Your task to perform on an android device: stop showing notifications on the lock screen Image 0: 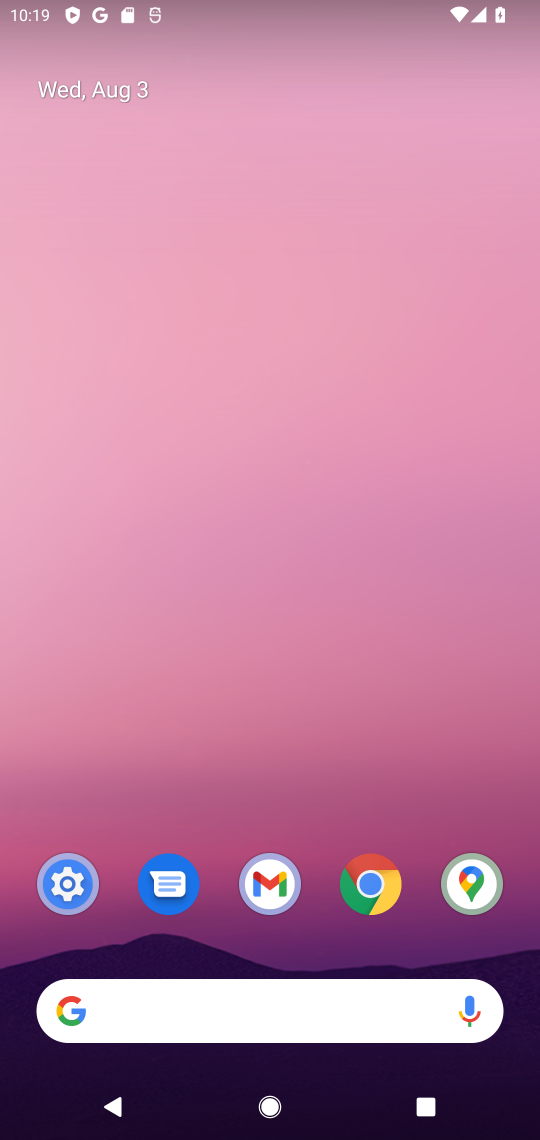
Step 0: click (65, 890)
Your task to perform on an android device: stop showing notifications on the lock screen Image 1: 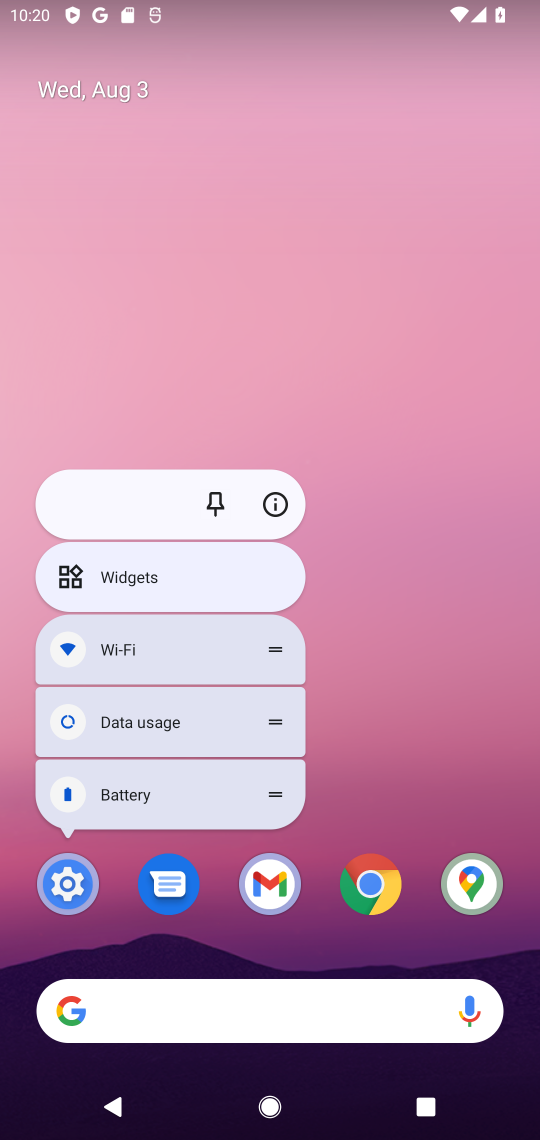
Step 1: click (73, 892)
Your task to perform on an android device: stop showing notifications on the lock screen Image 2: 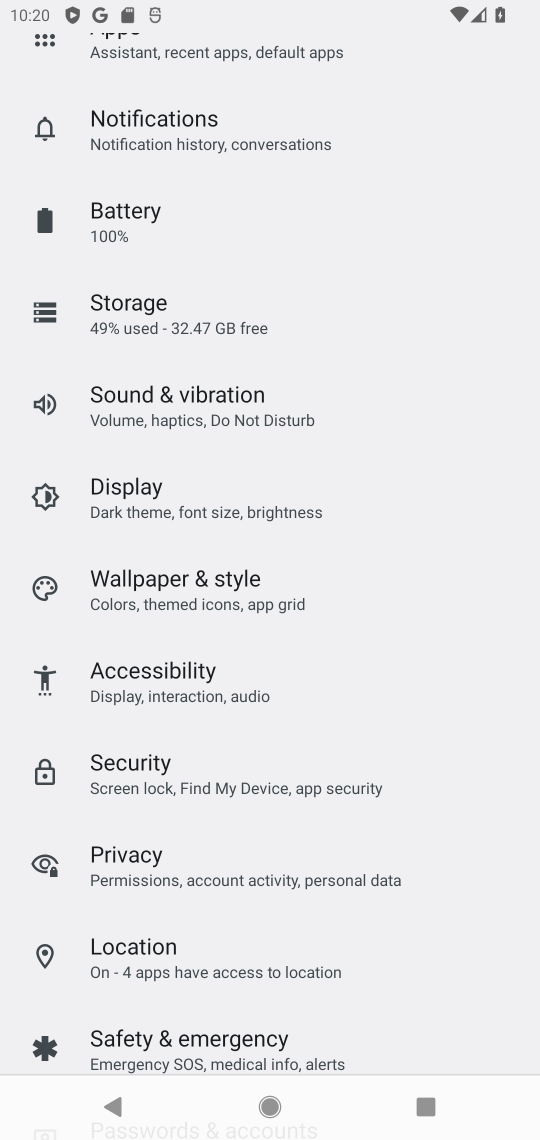
Step 2: click (158, 130)
Your task to perform on an android device: stop showing notifications on the lock screen Image 3: 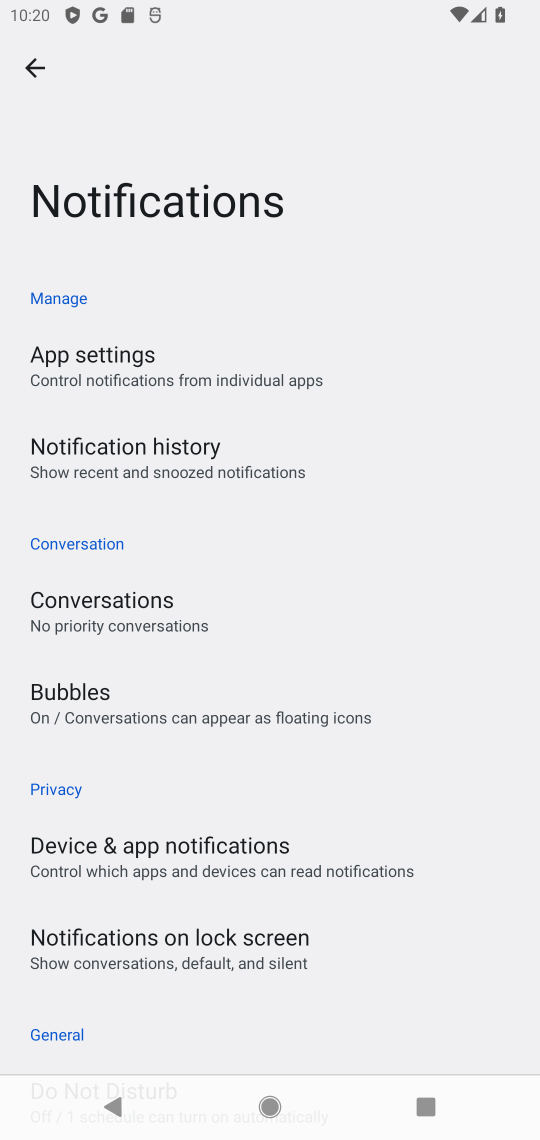
Step 3: click (162, 941)
Your task to perform on an android device: stop showing notifications on the lock screen Image 4: 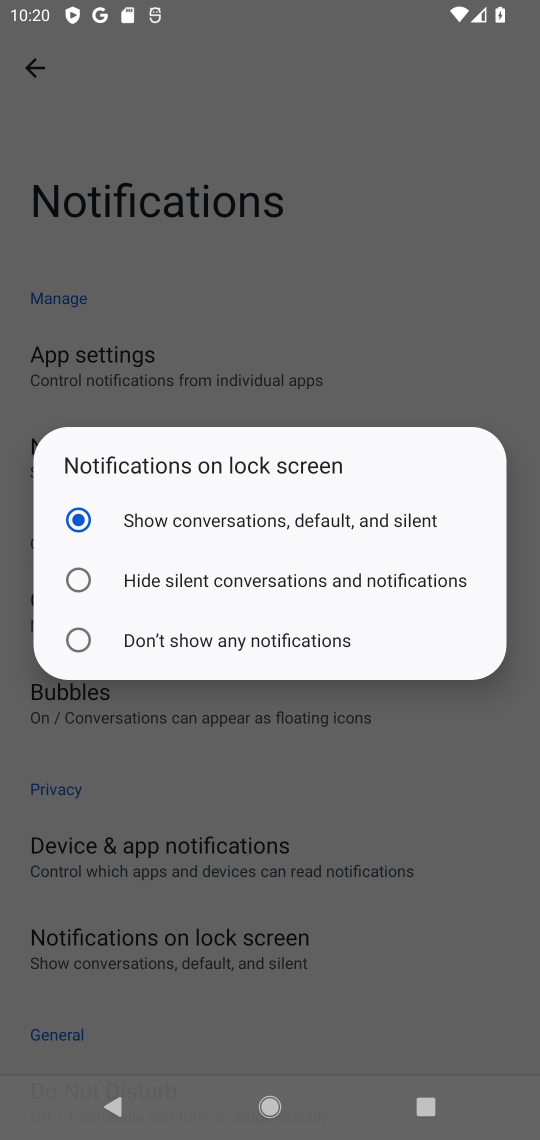
Step 4: click (67, 634)
Your task to perform on an android device: stop showing notifications on the lock screen Image 5: 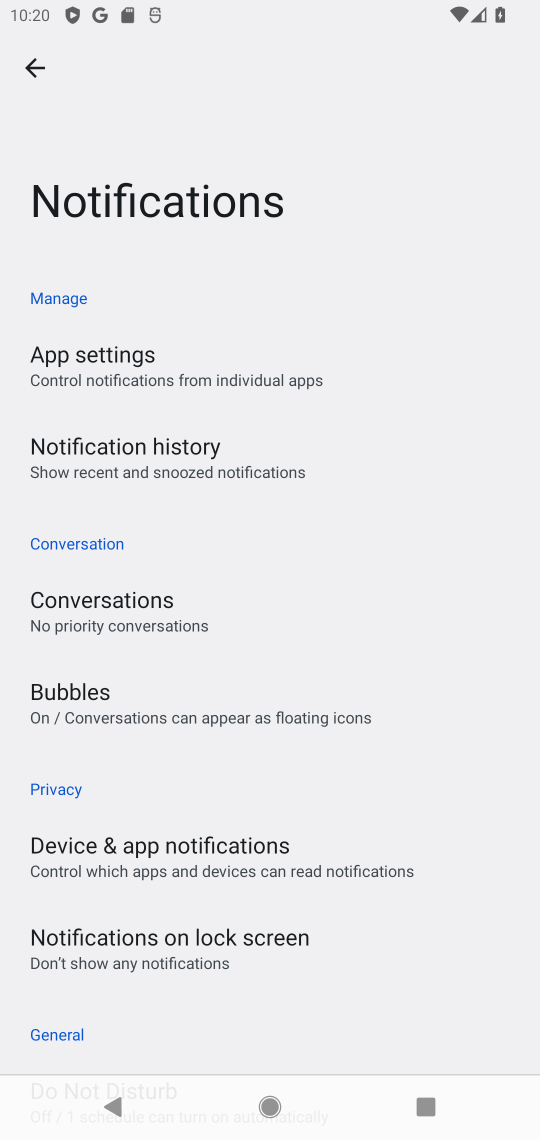
Step 5: task complete